Your task to perform on an android device: turn off sleep mode Image 0: 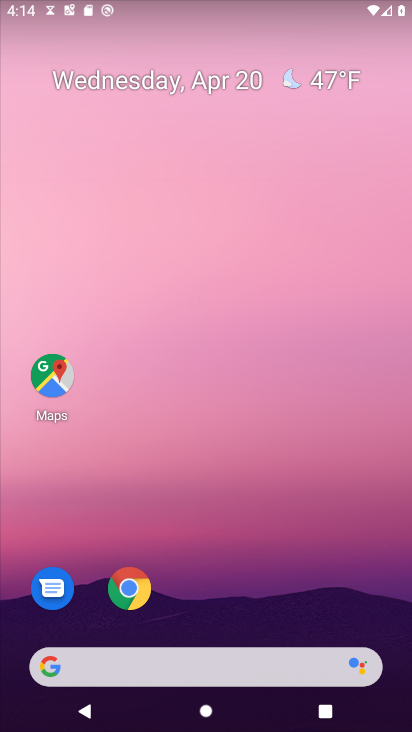
Step 0: drag from (241, 597) to (190, 92)
Your task to perform on an android device: turn off sleep mode Image 1: 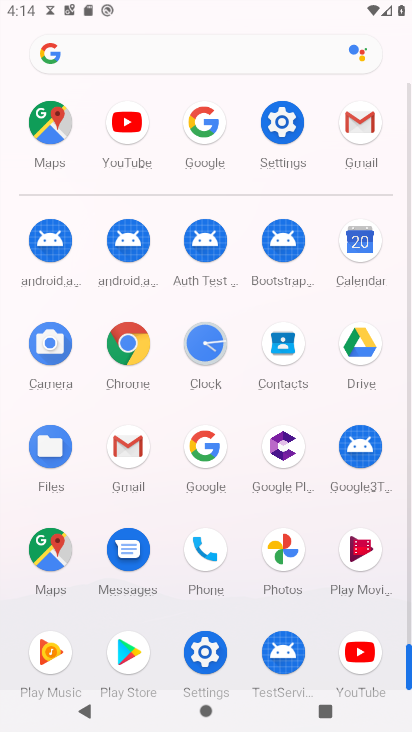
Step 1: click (278, 135)
Your task to perform on an android device: turn off sleep mode Image 2: 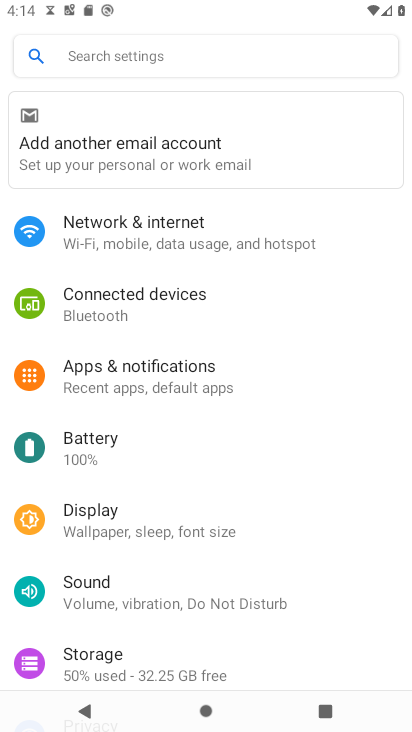
Step 2: click (193, 539)
Your task to perform on an android device: turn off sleep mode Image 3: 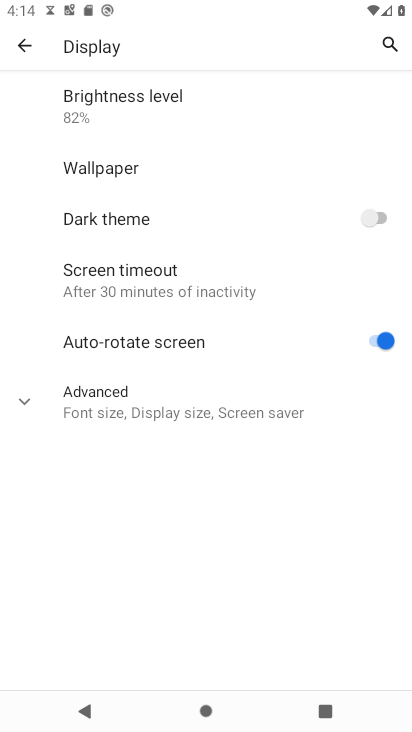
Step 3: click (197, 400)
Your task to perform on an android device: turn off sleep mode Image 4: 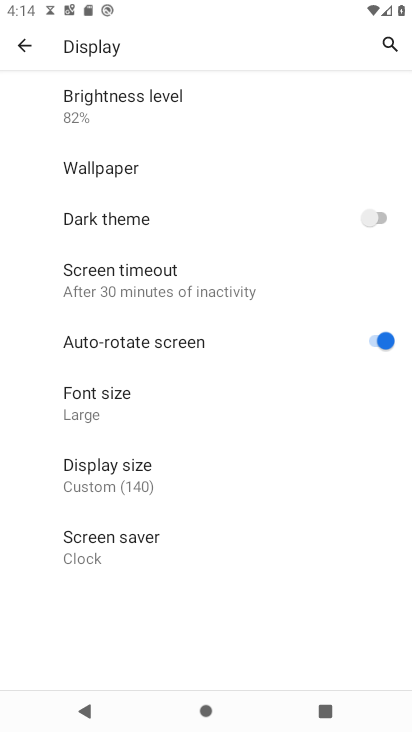
Step 4: click (22, 44)
Your task to perform on an android device: turn off sleep mode Image 5: 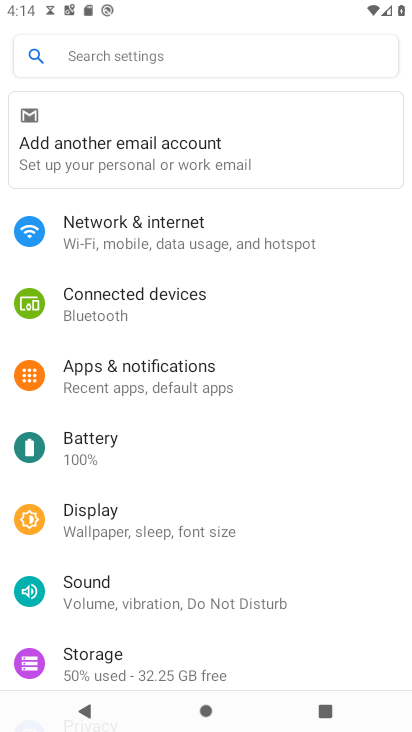
Step 5: task complete